Your task to perform on an android device: turn on the 24-hour format for clock Image 0: 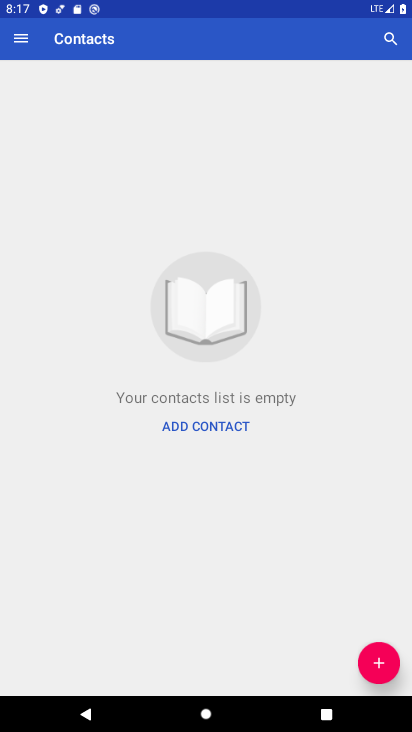
Step 0: press home button
Your task to perform on an android device: turn on the 24-hour format for clock Image 1: 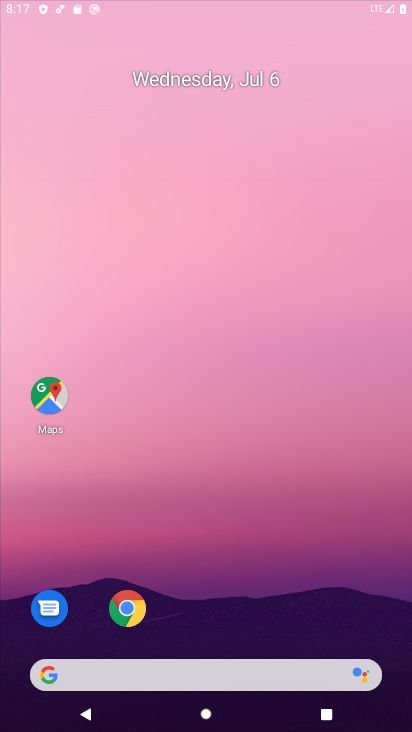
Step 1: drag from (395, 647) to (352, 18)
Your task to perform on an android device: turn on the 24-hour format for clock Image 2: 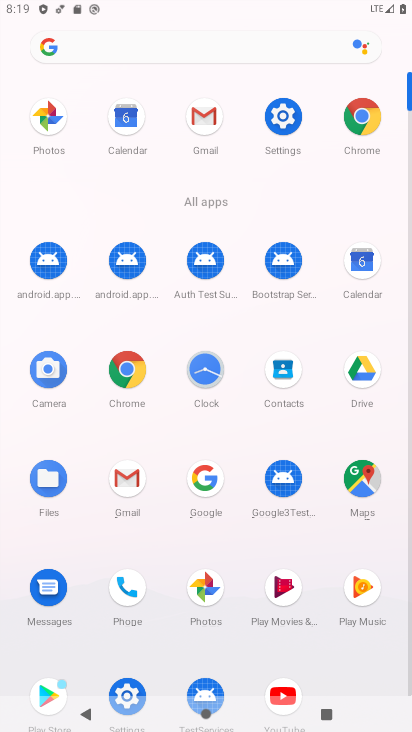
Step 2: click (209, 381)
Your task to perform on an android device: turn on the 24-hour format for clock Image 3: 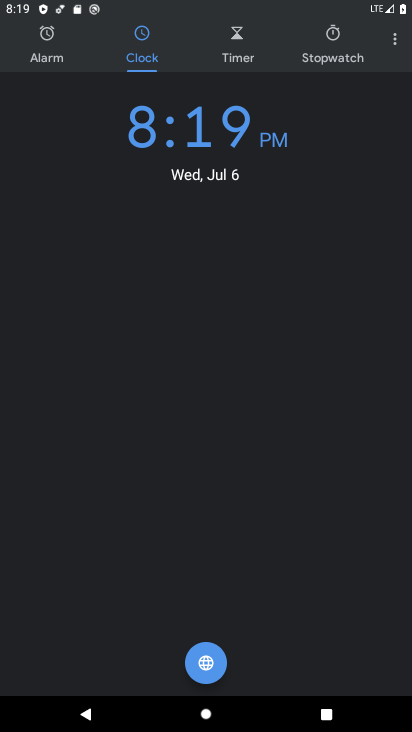
Step 3: click (392, 36)
Your task to perform on an android device: turn on the 24-hour format for clock Image 4: 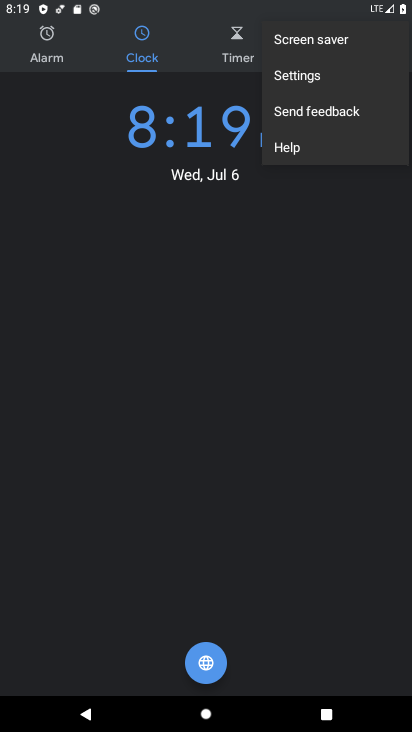
Step 4: click (282, 80)
Your task to perform on an android device: turn on the 24-hour format for clock Image 5: 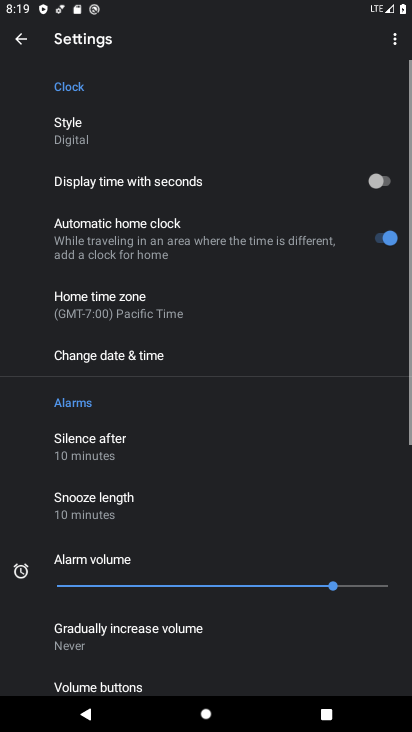
Step 5: drag from (189, 667) to (172, 43)
Your task to perform on an android device: turn on the 24-hour format for clock Image 6: 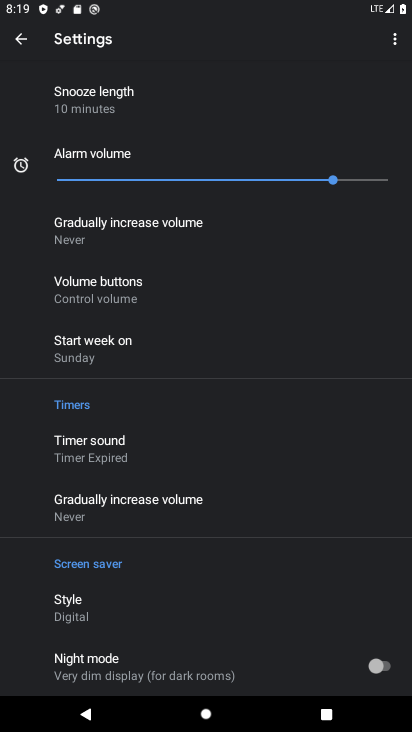
Step 6: drag from (145, 619) to (227, 15)
Your task to perform on an android device: turn on the 24-hour format for clock Image 7: 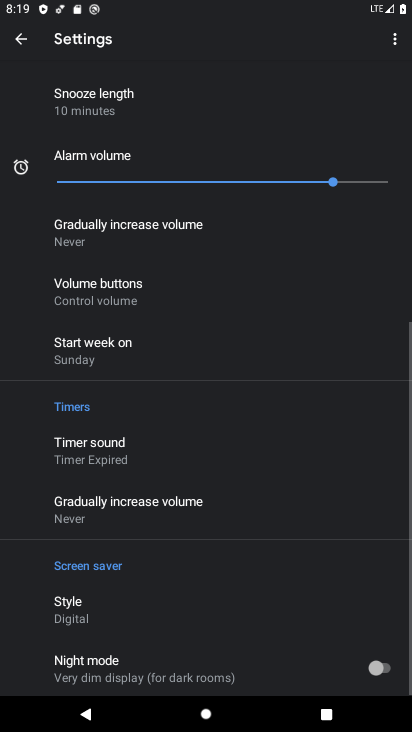
Step 7: drag from (163, 629) to (124, 234)
Your task to perform on an android device: turn on the 24-hour format for clock Image 8: 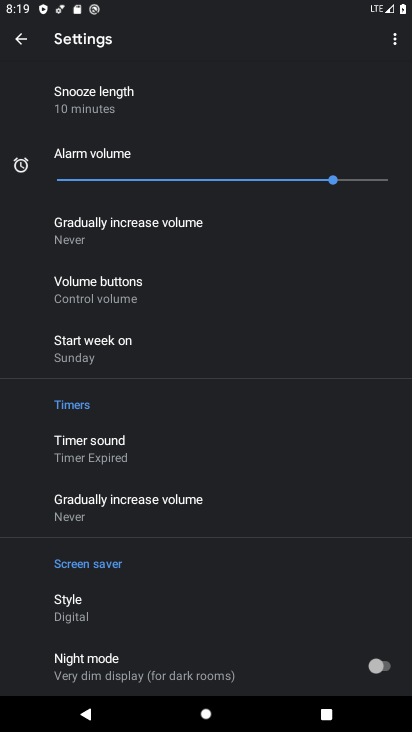
Step 8: drag from (208, 112) to (165, 602)
Your task to perform on an android device: turn on the 24-hour format for clock Image 9: 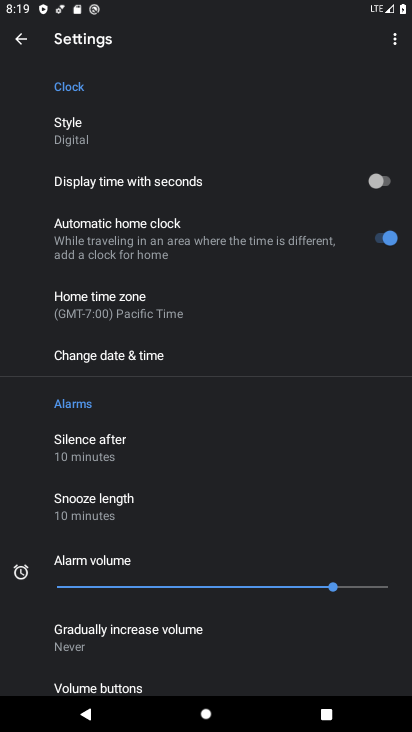
Step 9: click (206, 354)
Your task to perform on an android device: turn on the 24-hour format for clock Image 10: 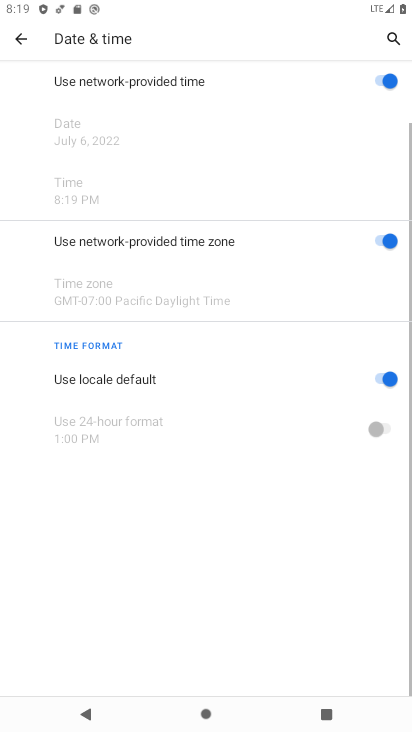
Step 10: task complete